Your task to perform on an android device: Go to eBay Image 0: 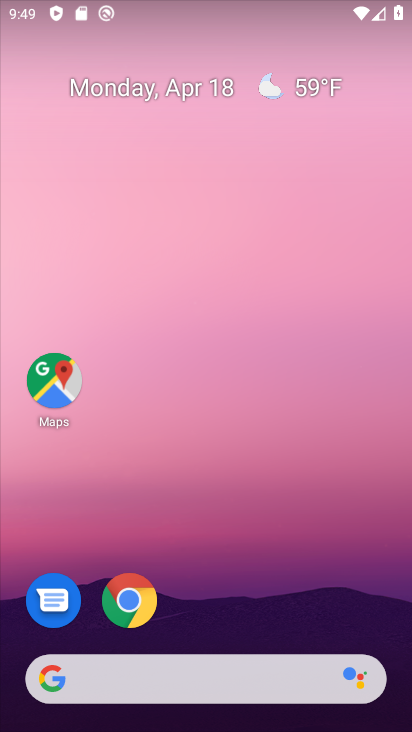
Step 0: click (121, 602)
Your task to perform on an android device: Go to eBay Image 1: 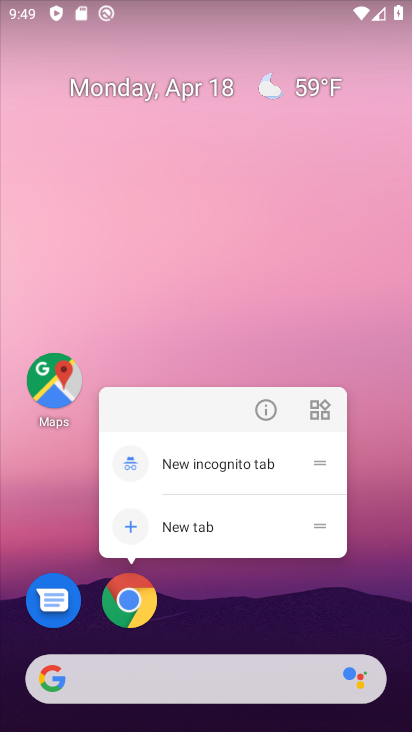
Step 1: click (212, 604)
Your task to perform on an android device: Go to eBay Image 2: 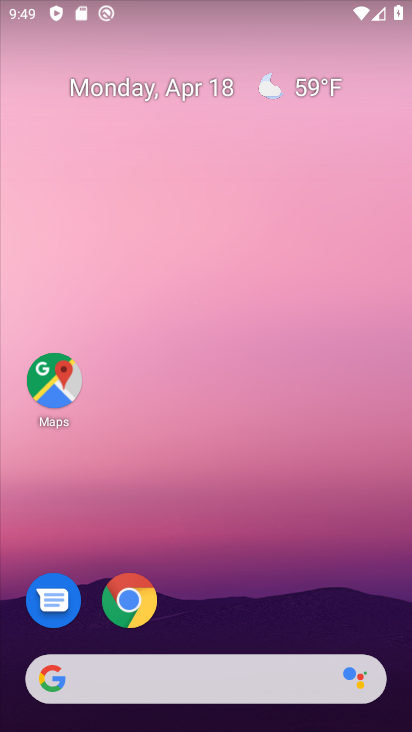
Step 2: drag from (222, 623) to (190, 8)
Your task to perform on an android device: Go to eBay Image 3: 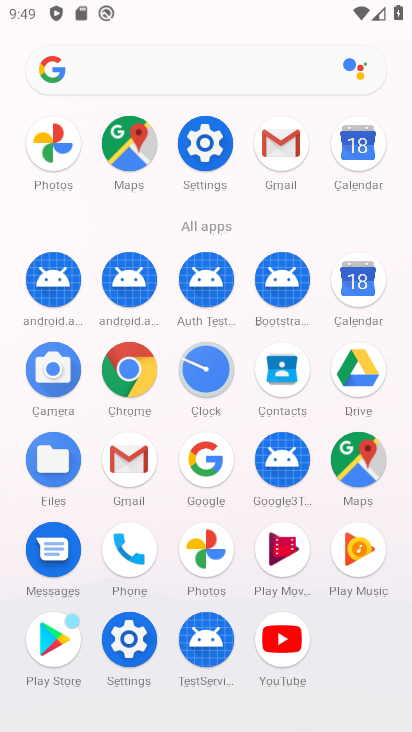
Step 3: click (121, 369)
Your task to perform on an android device: Go to eBay Image 4: 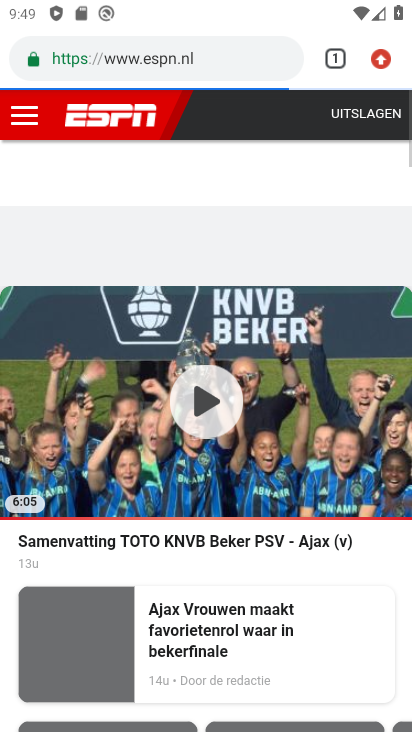
Step 4: drag from (275, 624) to (263, 234)
Your task to perform on an android device: Go to eBay Image 5: 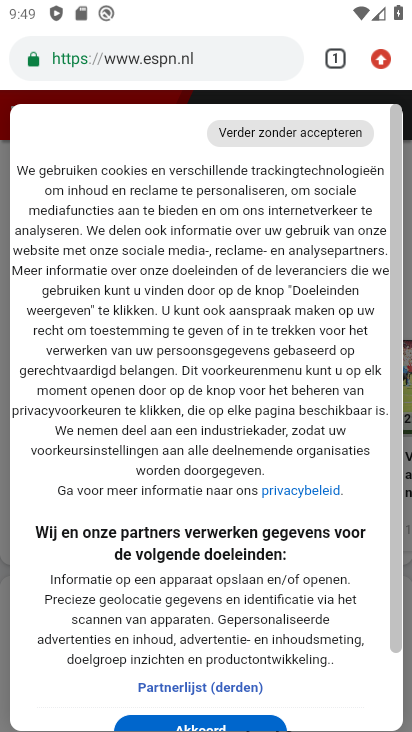
Step 5: drag from (295, 626) to (244, 196)
Your task to perform on an android device: Go to eBay Image 6: 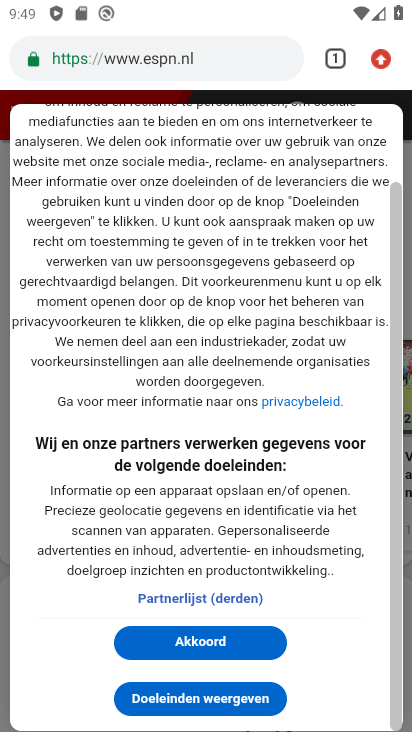
Step 6: click (185, 648)
Your task to perform on an android device: Go to eBay Image 7: 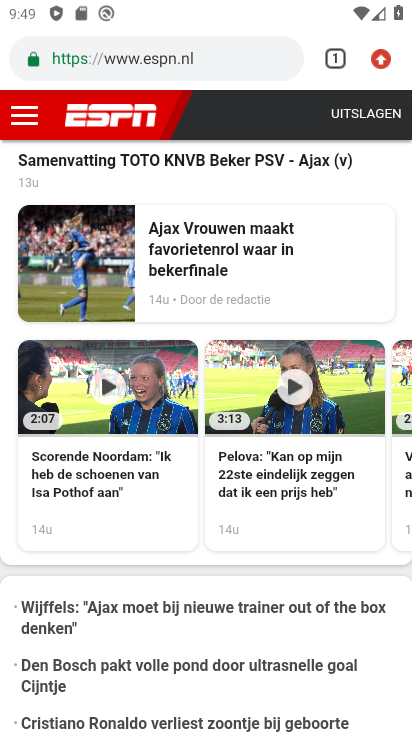
Step 7: click (383, 63)
Your task to perform on an android device: Go to eBay Image 8: 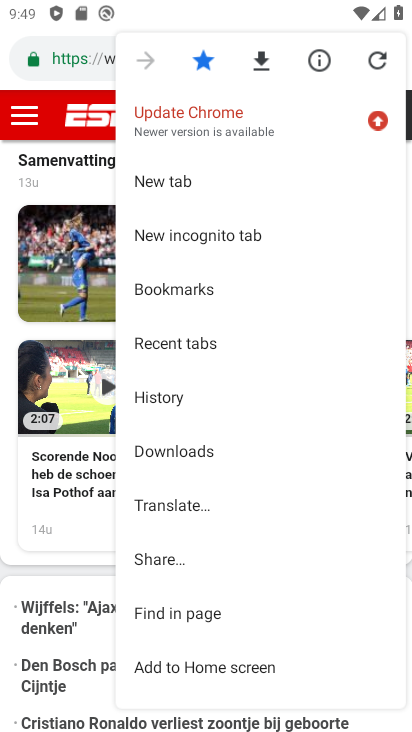
Step 8: click (154, 177)
Your task to perform on an android device: Go to eBay Image 9: 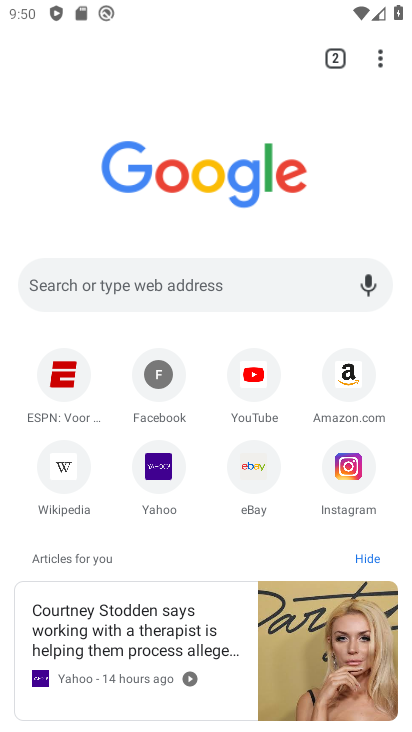
Step 9: click (257, 475)
Your task to perform on an android device: Go to eBay Image 10: 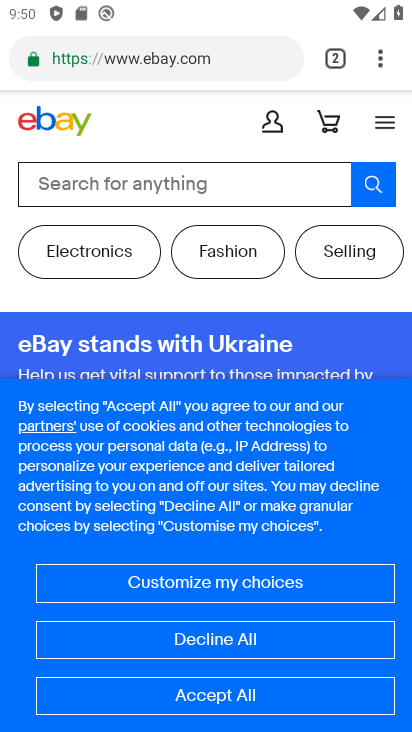
Step 10: task complete